Your task to perform on an android device: Open location settings Image 0: 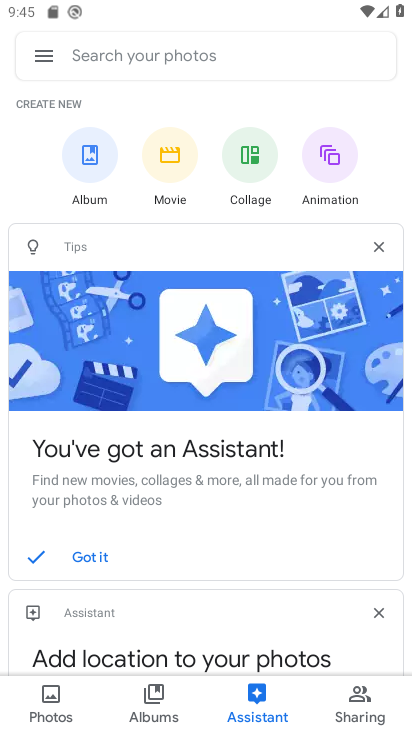
Step 0: press home button
Your task to perform on an android device: Open location settings Image 1: 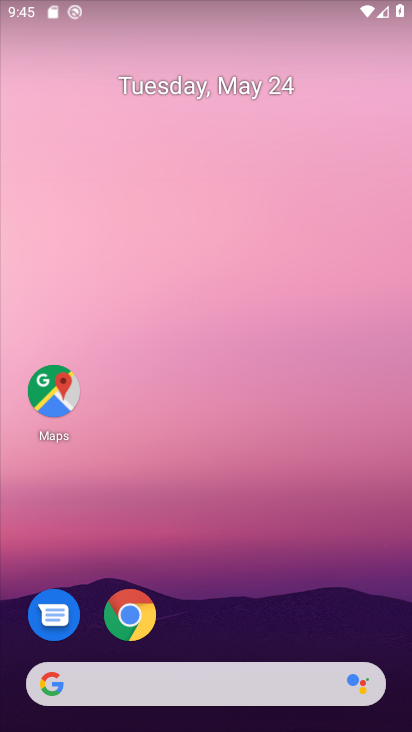
Step 1: drag from (372, 637) to (375, 167)
Your task to perform on an android device: Open location settings Image 2: 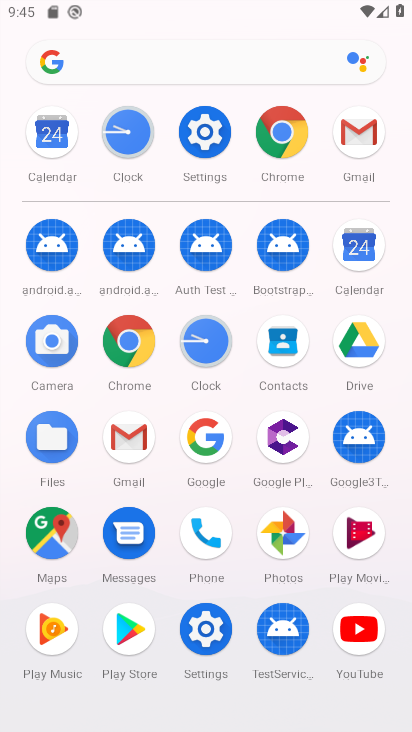
Step 2: click (211, 147)
Your task to perform on an android device: Open location settings Image 3: 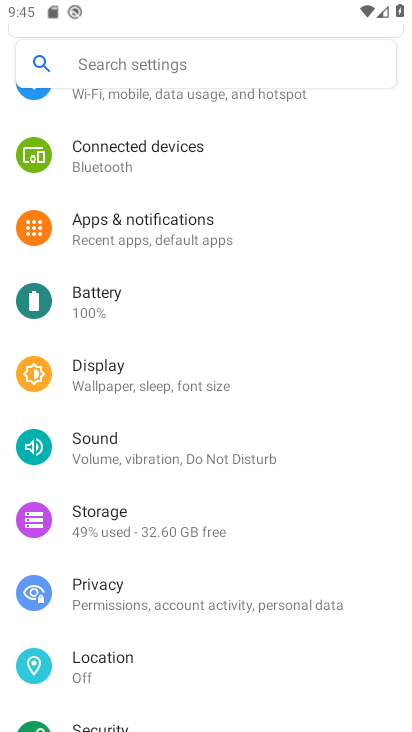
Step 3: drag from (313, 575) to (317, 514)
Your task to perform on an android device: Open location settings Image 4: 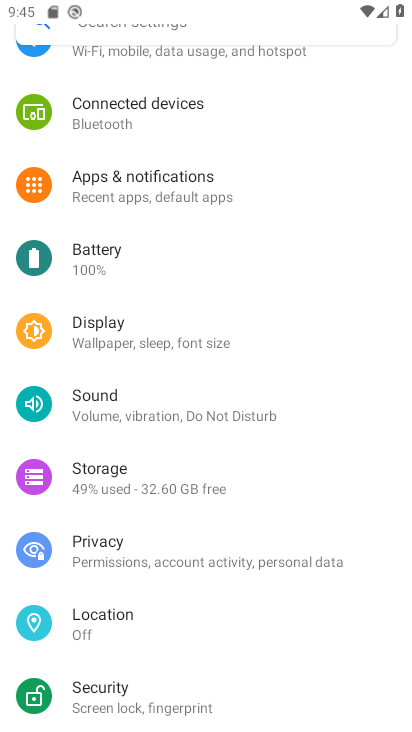
Step 4: drag from (333, 613) to (337, 494)
Your task to perform on an android device: Open location settings Image 5: 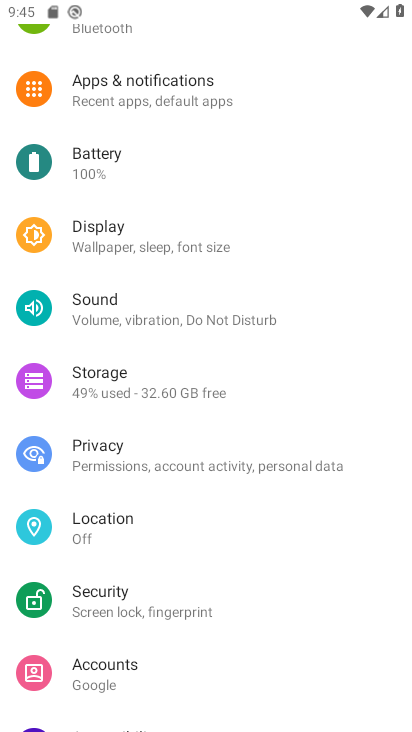
Step 5: drag from (315, 630) to (308, 521)
Your task to perform on an android device: Open location settings Image 6: 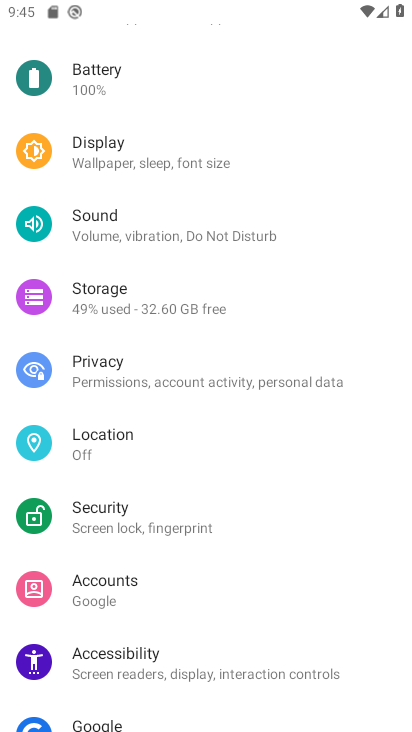
Step 6: drag from (326, 613) to (322, 532)
Your task to perform on an android device: Open location settings Image 7: 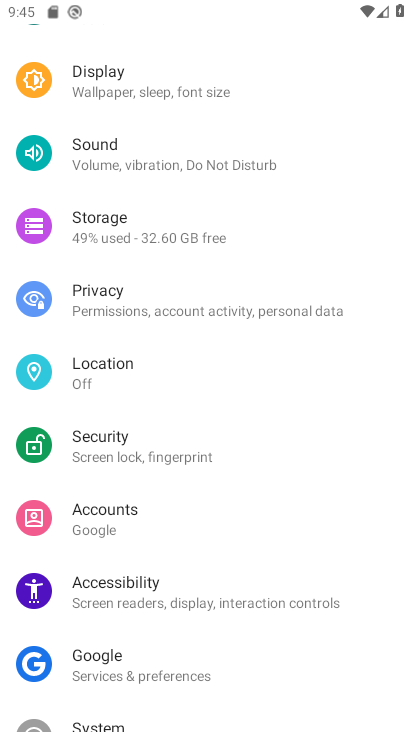
Step 7: drag from (324, 654) to (334, 477)
Your task to perform on an android device: Open location settings Image 8: 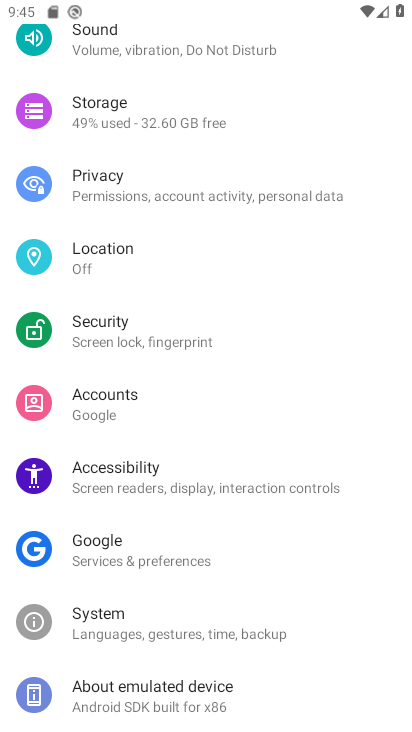
Step 8: click (121, 264)
Your task to perform on an android device: Open location settings Image 9: 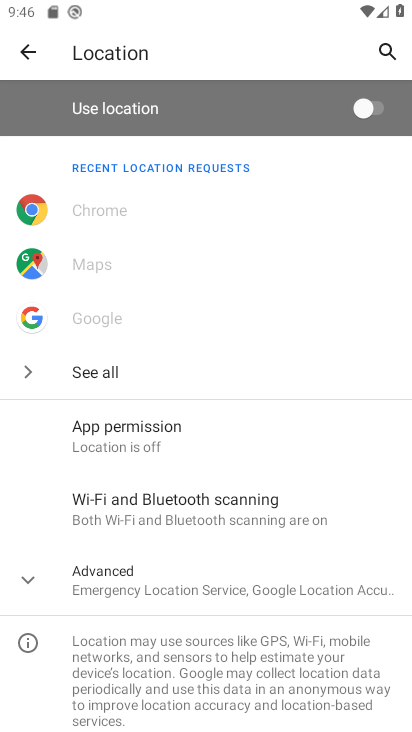
Step 9: task complete